Your task to perform on an android device: search for starred emails in the gmail app Image 0: 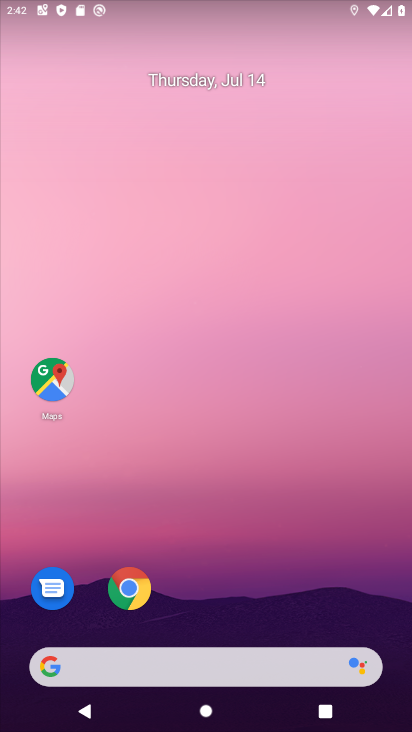
Step 0: drag from (183, 627) to (170, 96)
Your task to perform on an android device: search for starred emails in the gmail app Image 1: 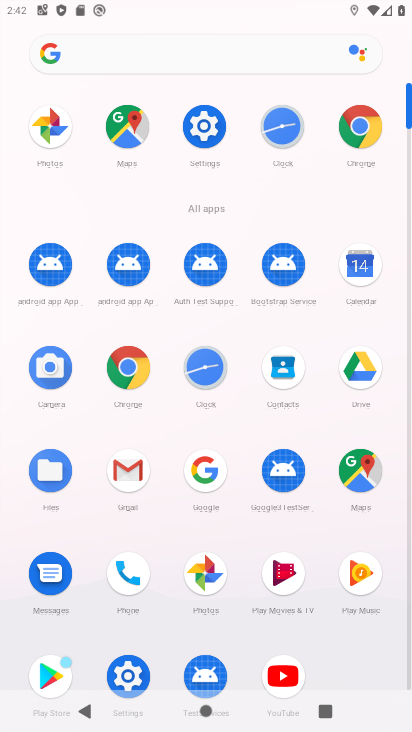
Step 1: click (115, 464)
Your task to perform on an android device: search for starred emails in the gmail app Image 2: 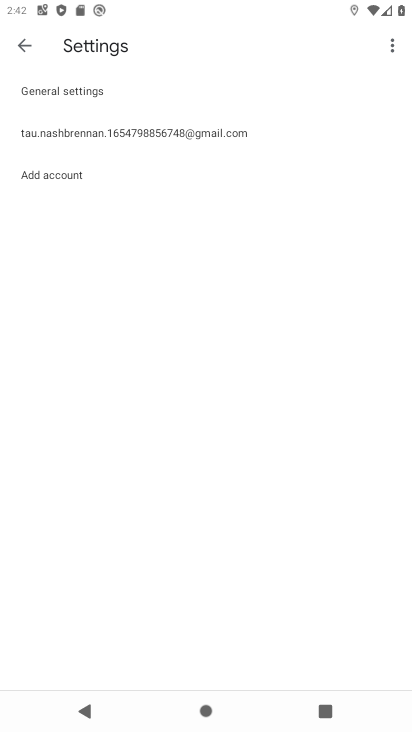
Step 2: click (17, 48)
Your task to perform on an android device: search for starred emails in the gmail app Image 3: 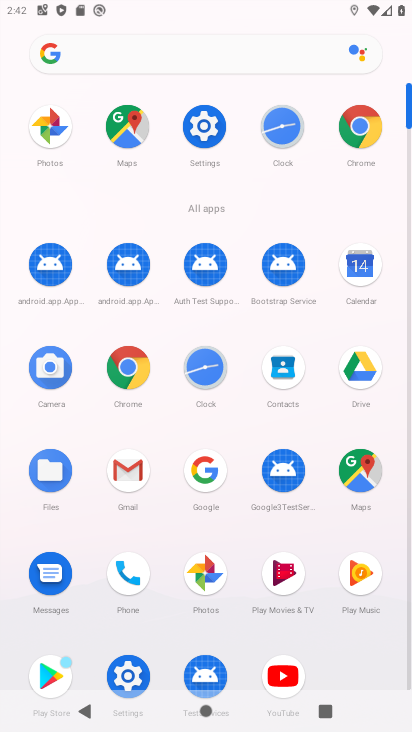
Step 3: click (135, 492)
Your task to perform on an android device: search for starred emails in the gmail app Image 4: 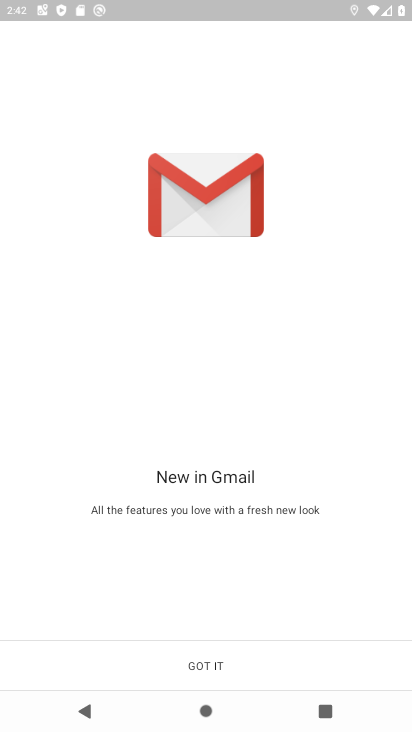
Step 4: click (232, 672)
Your task to perform on an android device: search for starred emails in the gmail app Image 5: 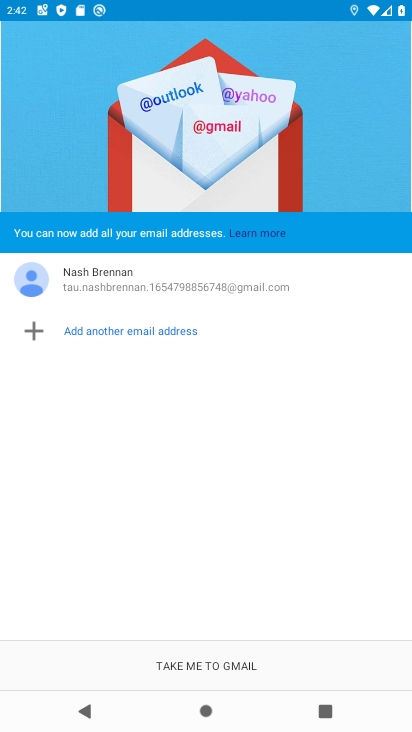
Step 5: click (232, 672)
Your task to perform on an android device: search for starred emails in the gmail app Image 6: 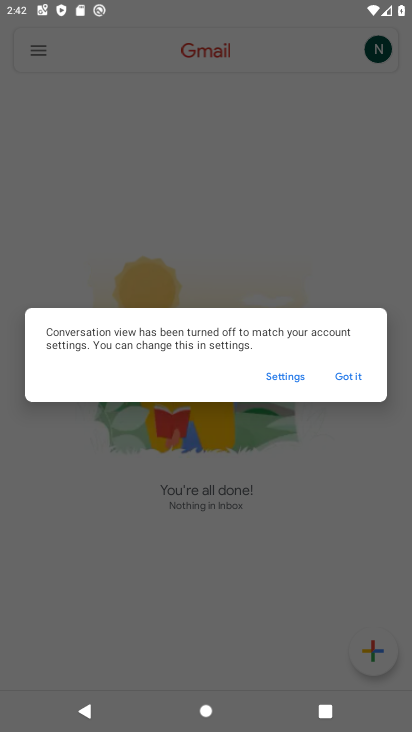
Step 6: click (339, 373)
Your task to perform on an android device: search for starred emails in the gmail app Image 7: 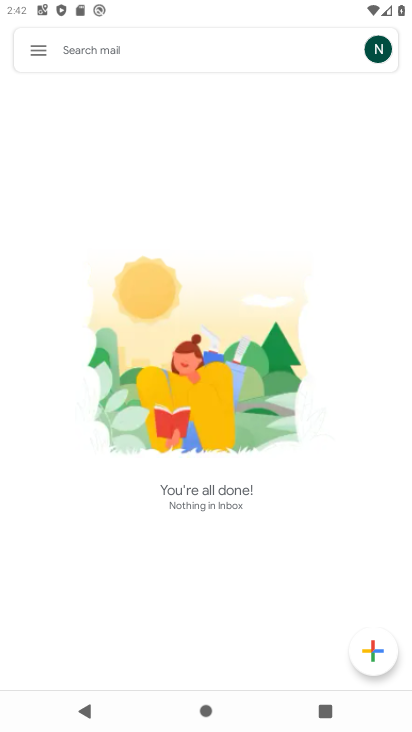
Step 7: drag from (26, 51) to (77, 216)
Your task to perform on an android device: search for starred emails in the gmail app Image 8: 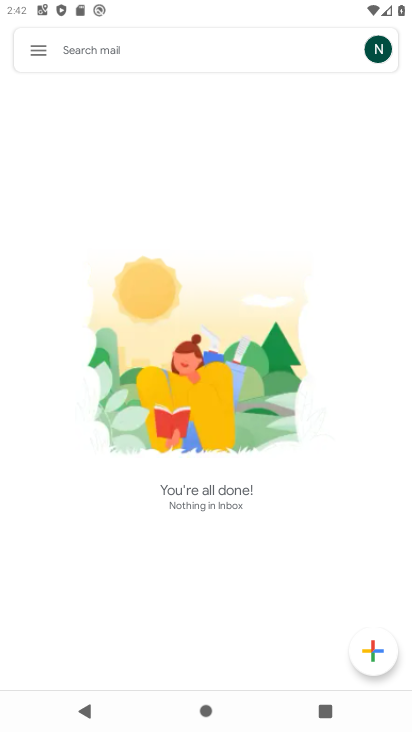
Step 8: click (42, 53)
Your task to perform on an android device: search for starred emails in the gmail app Image 9: 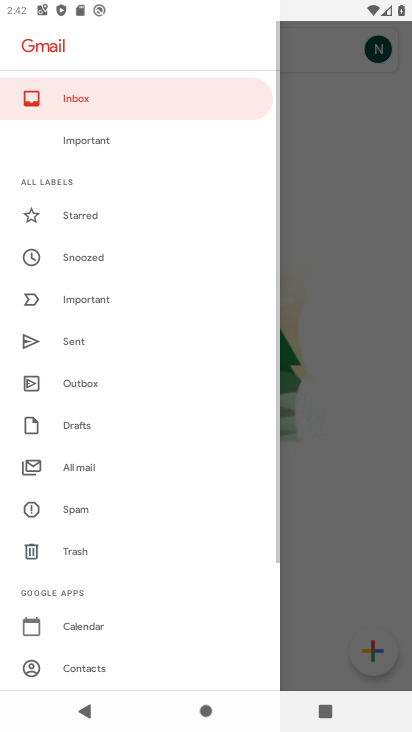
Step 9: click (77, 215)
Your task to perform on an android device: search for starred emails in the gmail app Image 10: 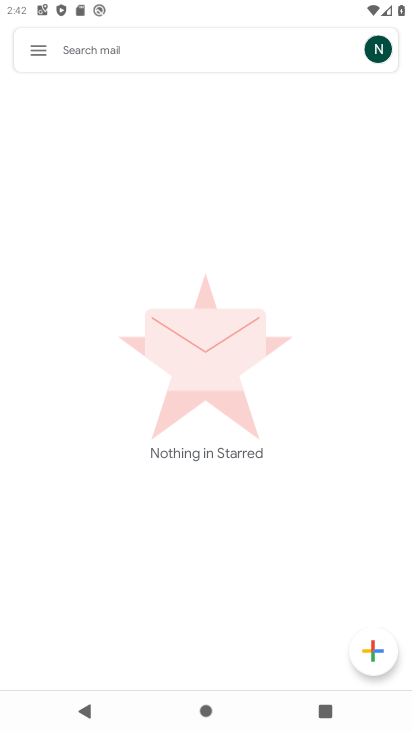
Step 10: task complete